Your task to perform on an android device: Clear all items from cart on newegg.com. Search for "bose soundlink" on newegg.com, select the first entry, and add it to the cart. Image 0: 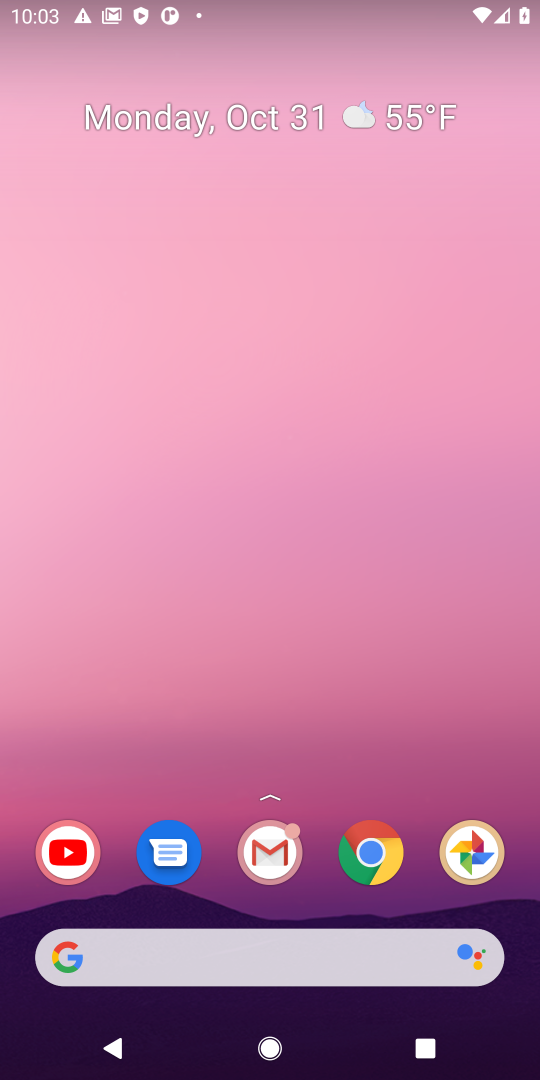
Step 0: press home button
Your task to perform on an android device: Clear all items from cart on newegg.com. Search for "bose soundlink" on newegg.com, select the first entry, and add it to the cart. Image 1: 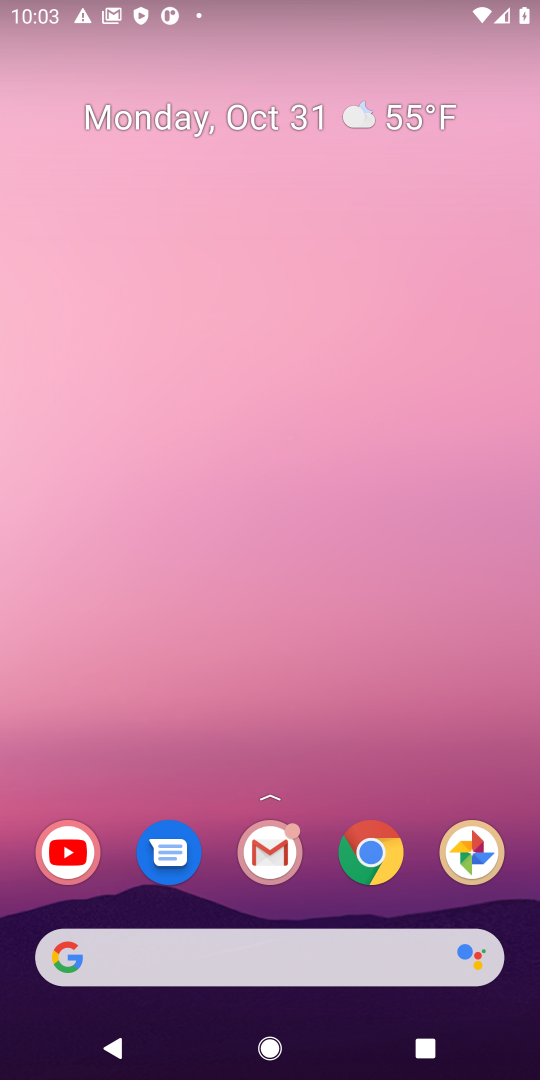
Step 1: drag from (321, 804) to (340, 41)
Your task to perform on an android device: Clear all items from cart on newegg.com. Search for "bose soundlink" on newegg.com, select the first entry, and add it to the cart. Image 2: 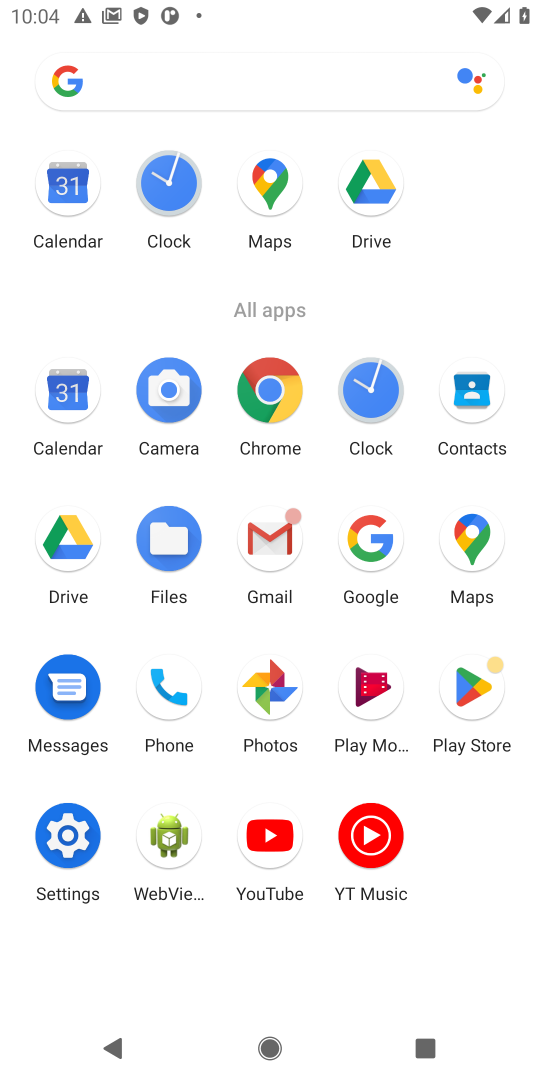
Step 2: click (270, 387)
Your task to perform on an android device: Clear all items from cart on newegg.com. Search for "bose soundlink" on newegg.com, select the first entry, and add it to the cart. Image 3: 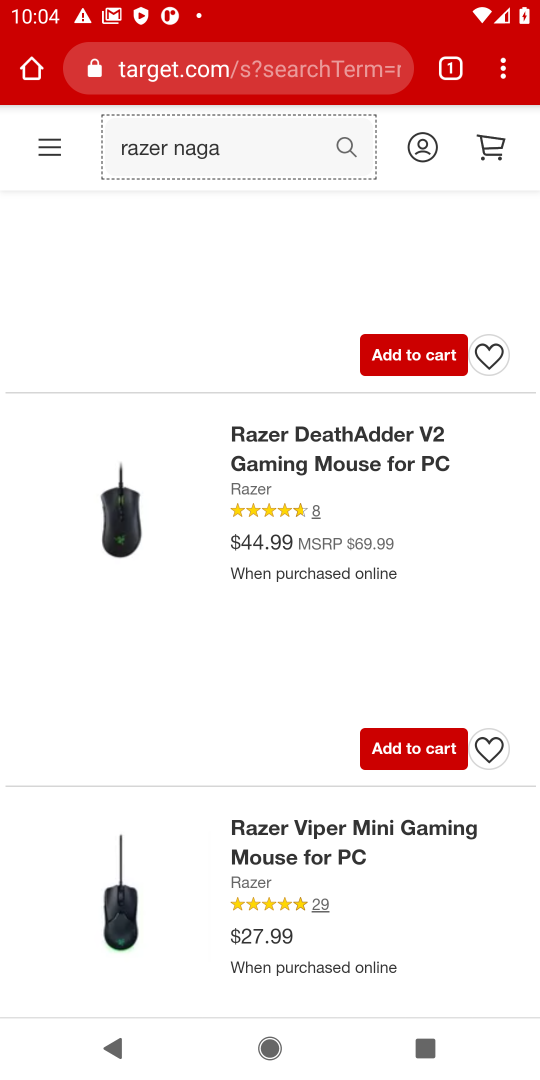
Step 3: click (351, 140)
Your task to perform on an android device: Clear all items from cart on newegg.com. Search for "bose soundlink" on newegg.com, select the first entry, and add it to the cart. Image 4: 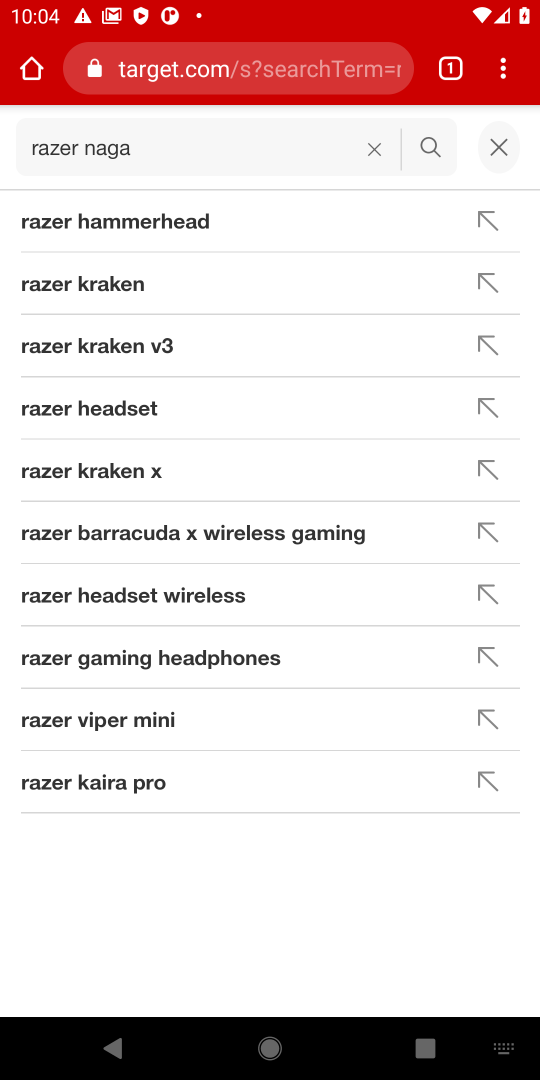
Step 4: click (375, 149)
Your task to perform on an android device: Clear all items from cart on newegg.com. Search for "bose soundlink" on newegg.com, select the first entry, and add it to the cart. Image 5: 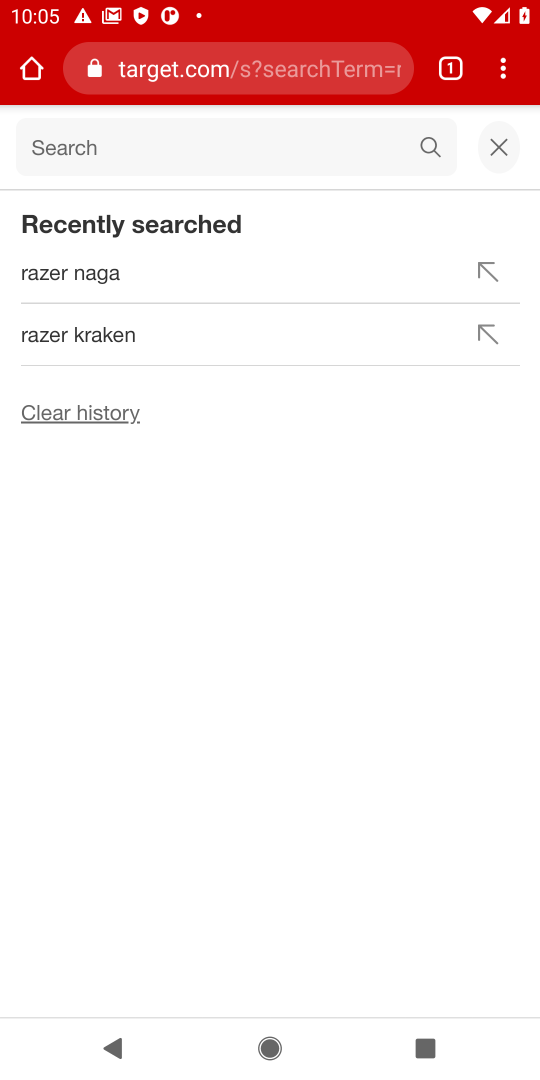
Step 5: click (108, 129)
Your task to perform on an android device: Clear all items from cart on newegg.com. Search for "bose soundlink" on newegg.com, select the first entry, and add it to the cart. Image 6: 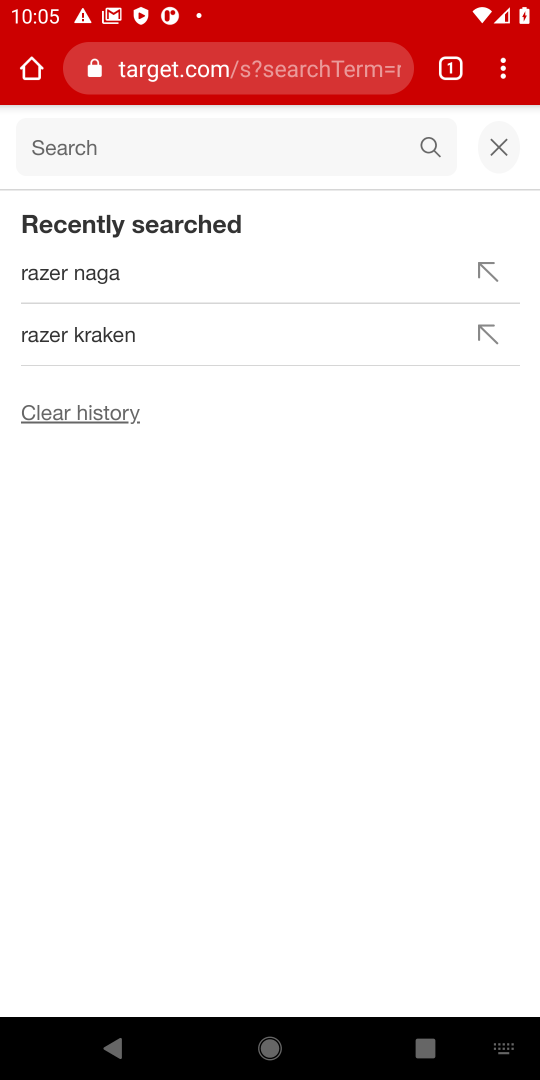
Step 6: click (108, 148)
Your task to perform on an android device: Clear all items from cart on newegg.com. Search for "bose soundlink" on newegg.com, select the first entry, and add it to the cart. Image 7: 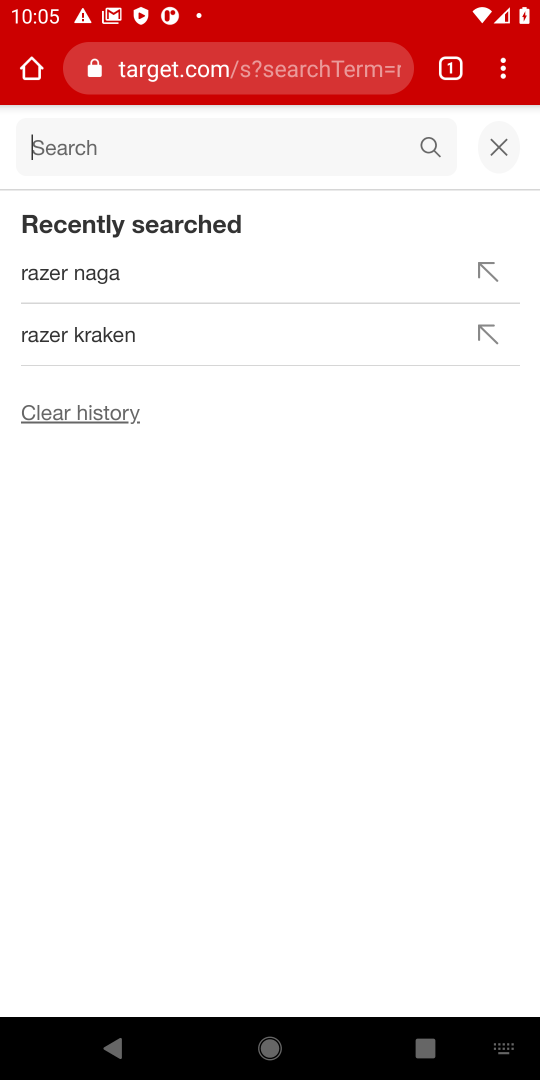
Step 7: type "bose soundlink"
Your task to perform on an android device: Clear all items from cart on newegg.com. Search for "bose soundlink" on newegg.com, select the first entry, and add it to the cart. Image 8: 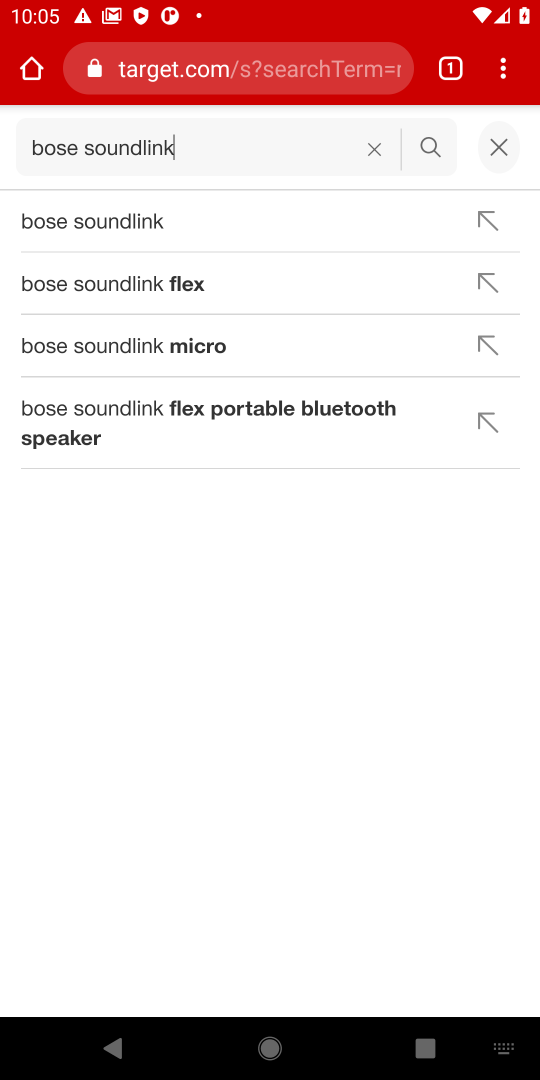
Step 8: click (179, 219)
Your task to perform on an android device: Clear all items from cart on newegg.com. Search for "bose soundlink" on newegg.com, select the first entry, and add it to the cart. Image 9: 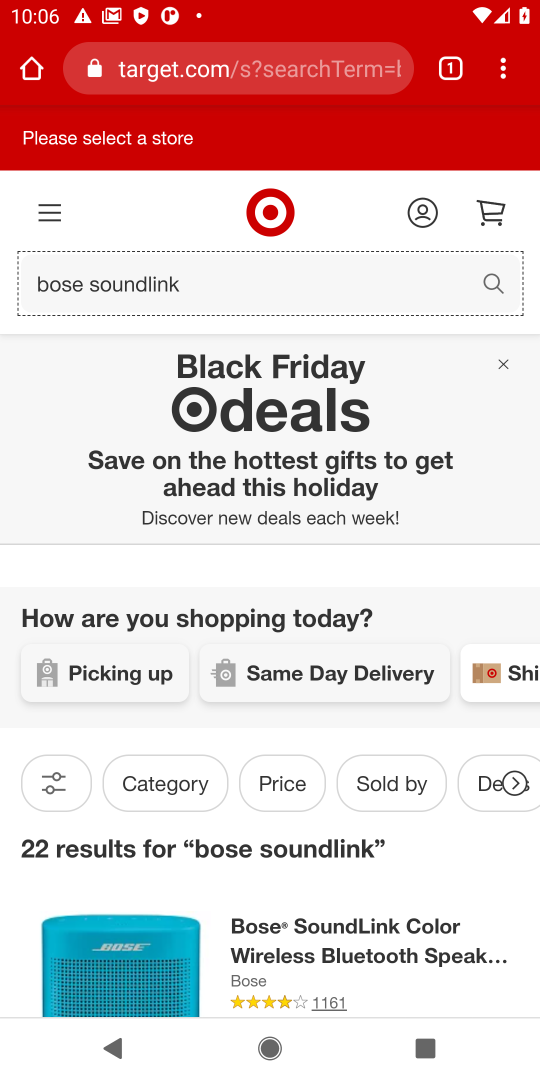
Step 9: drag from (350, 883) to (389, 294)
Your task to perform on an android device: Clear all items from cart on newegg.com. Search for "bose soundlink" on newegg.com, select the first entry, and add it to the cart. Image 10: 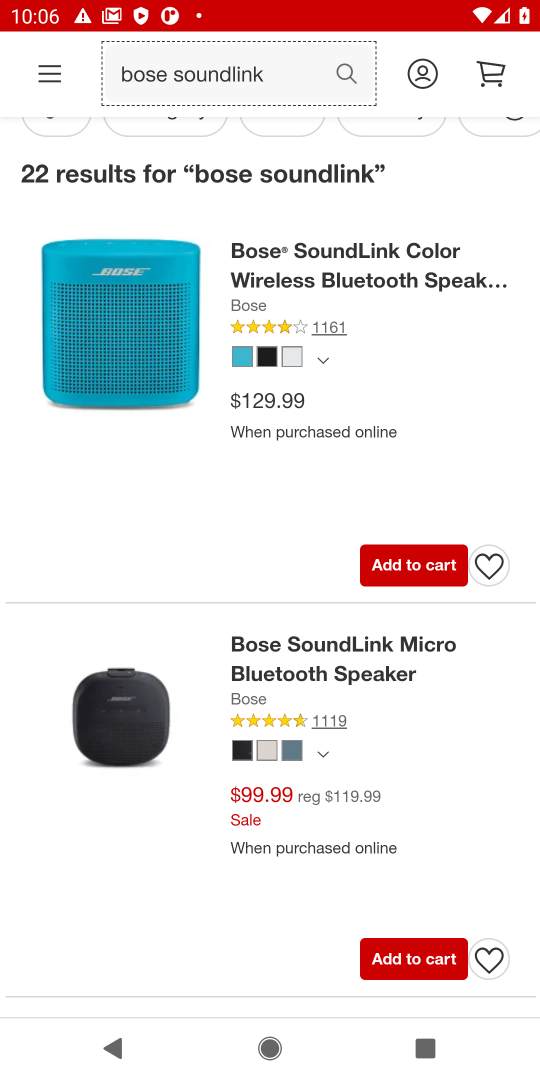
Step 10: click (322, 270)
Your task to perform on an android device: Clear all items from cart on newegg.com. Search for "bose soundlink" on newegg.com, select the first entry, and add it to the cart. Image 11: 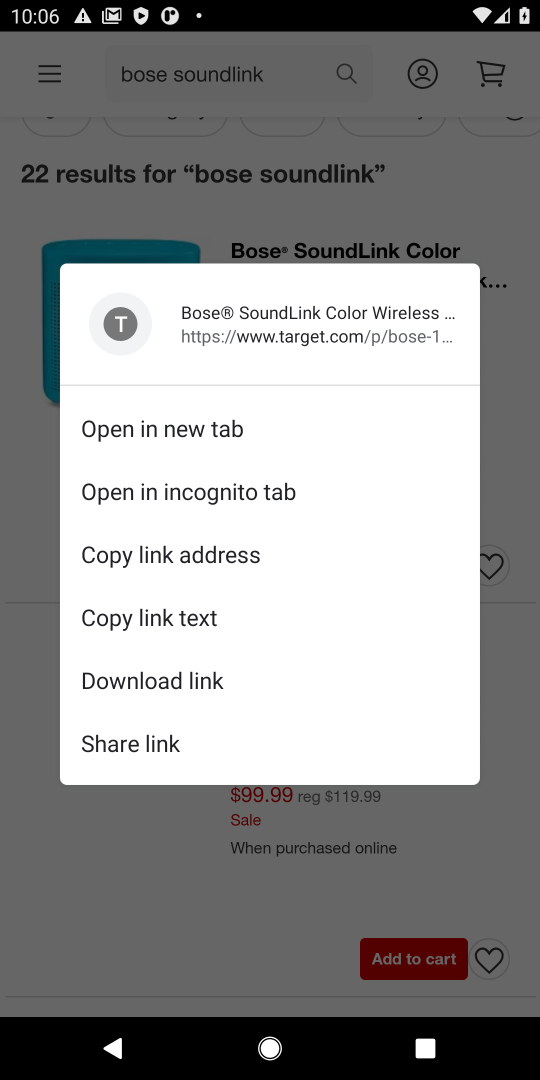
Step 11: click (311, 213)
Your task to perform on an android device: Clear all items from cart on newegg.com. Search for "bose soundlink" on newegg.com, select the first entry, and add it to the cart. Image 12: 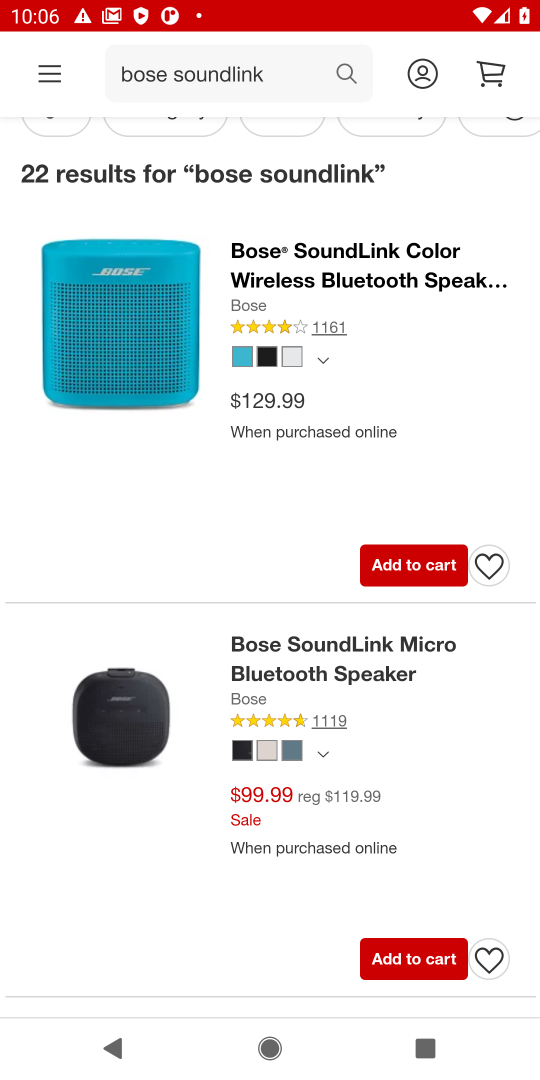
Step 12: click (154, 348)
Your task to perform on an android device: Clear all items from cart on newegg.com. Search for "bose soundlink" on newegg.com, select the first entry, and add it to the cart. Image 13: 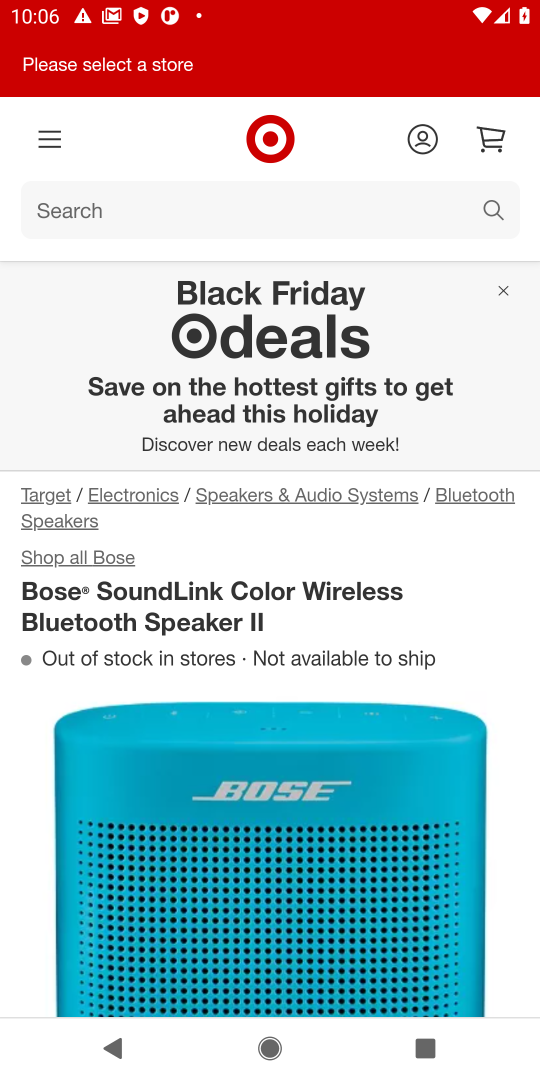
Step 13: drag from (306, 640) to (306, 148)
Your task to perform on an android device: Clear all items from cart on newegg.com. Search for "bose soundlink" on newegg.com, select the first entry, and add it to the cart. Image 14: 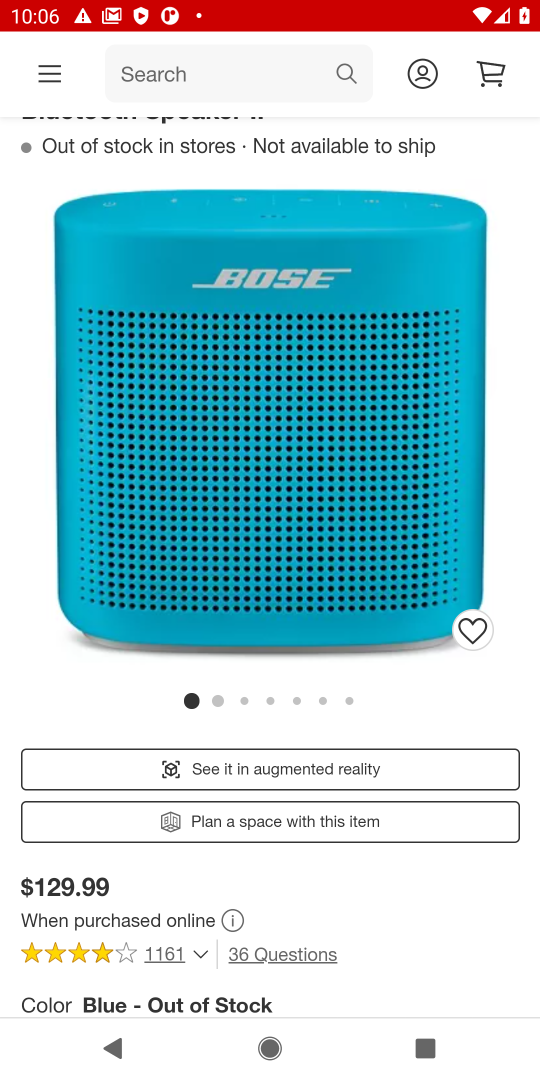
Step 14: drag from (325, 938) to (296, 324)
Your task to perform on an android device: Clear all items from cart on newegg.com. Search for "bose soundlink" on newegg.com, select the first entry, and add it to the cart. Image 15: 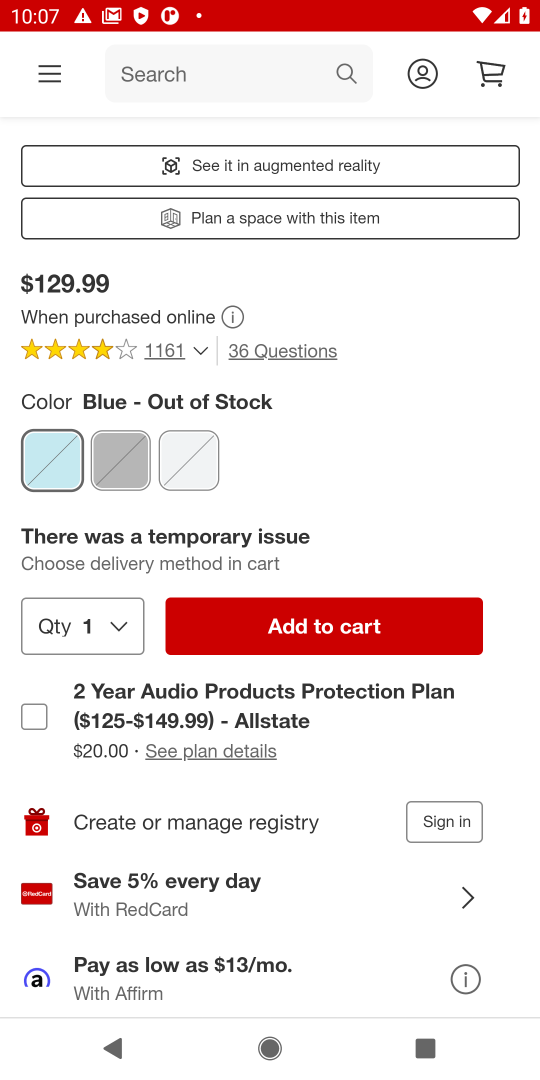
Step 15: click (325, 626)
Your task to perform on an android device: Clear all items from cart on newegg.com. Search for "bose soundlink" on newegg.com, select the first entry, and add it to the cart. Image 16: 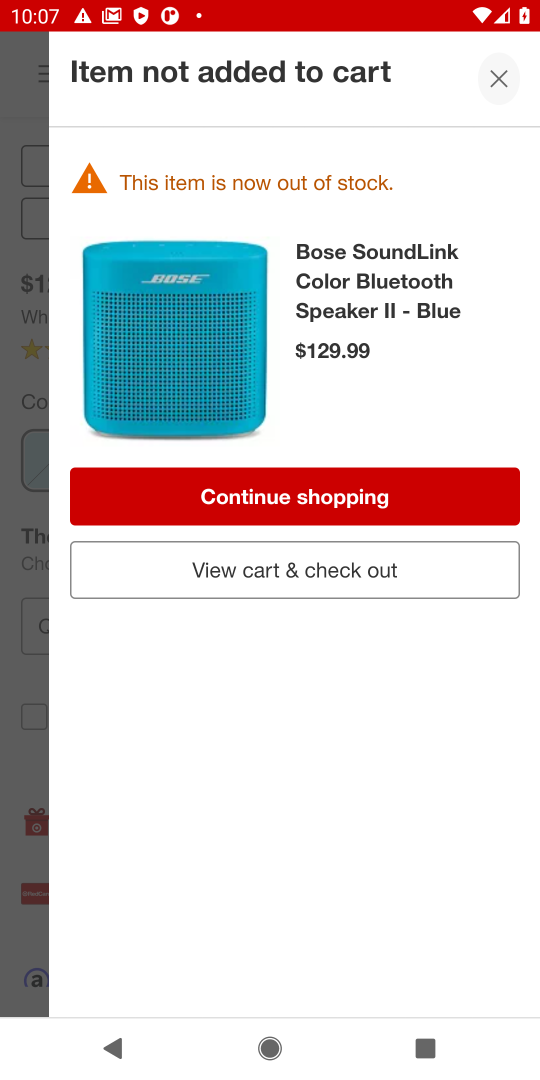
Step 16: click (494, 72)
Your task to perform on an android device: Clear all items from cart on newegg.com. Search for "bose soundlink" on newegg.com, select the first entry, and add it to the cart. Image 17: 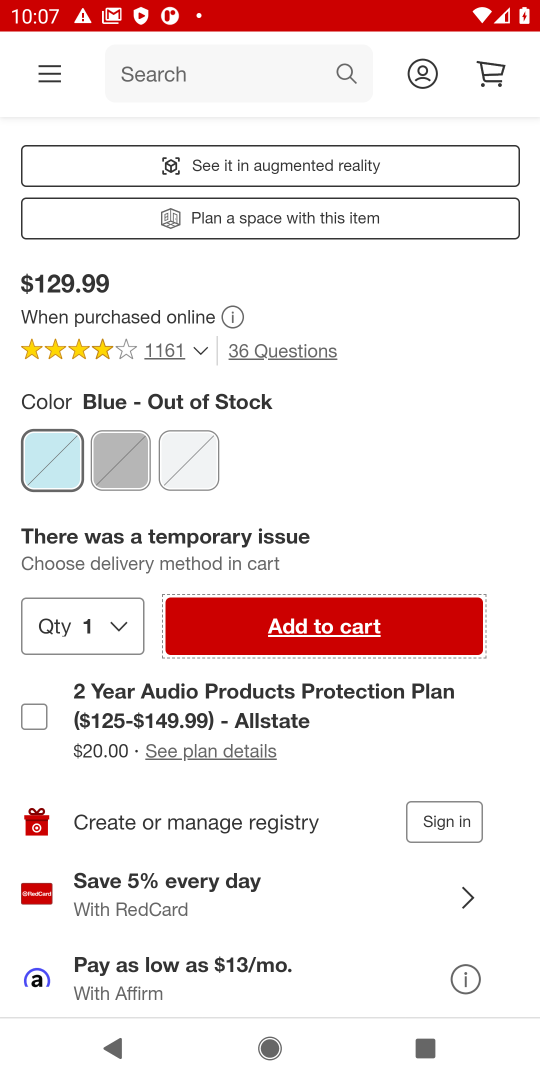
Step 17: click (341, 641)
Your task to perform on an android device: Clear all items from cart on newegg.com. Search for "bose soundlink" on newegg.com, select the first entry, and add it to the cart. Image 18: 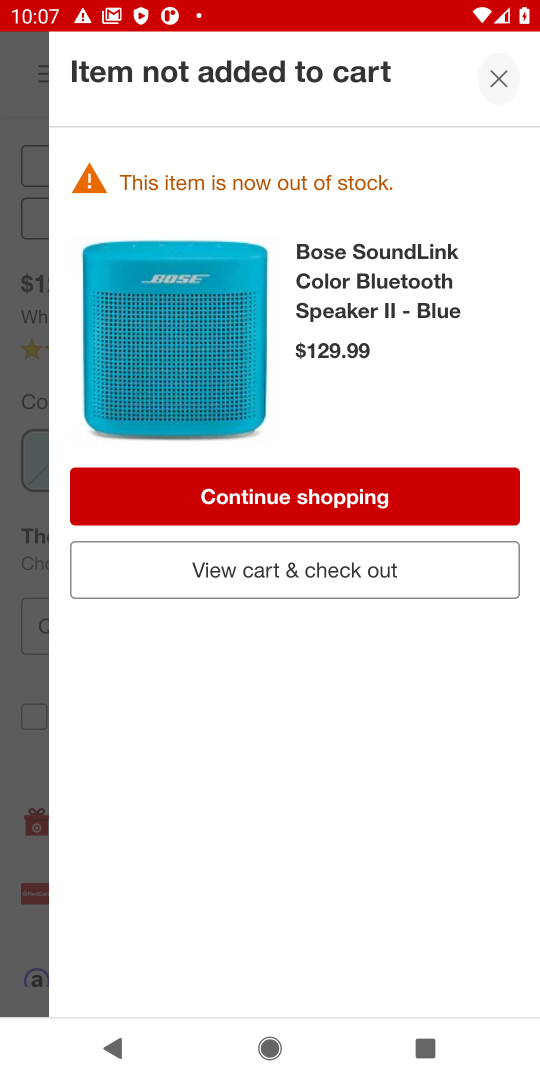
Step 18: click (508, 81)
Your task to perform on an android device: Clear all items from cart on newegg.com. Search for "bose soundlink" on newegg.com, select the first entry, and add it to the cart. Image 19: 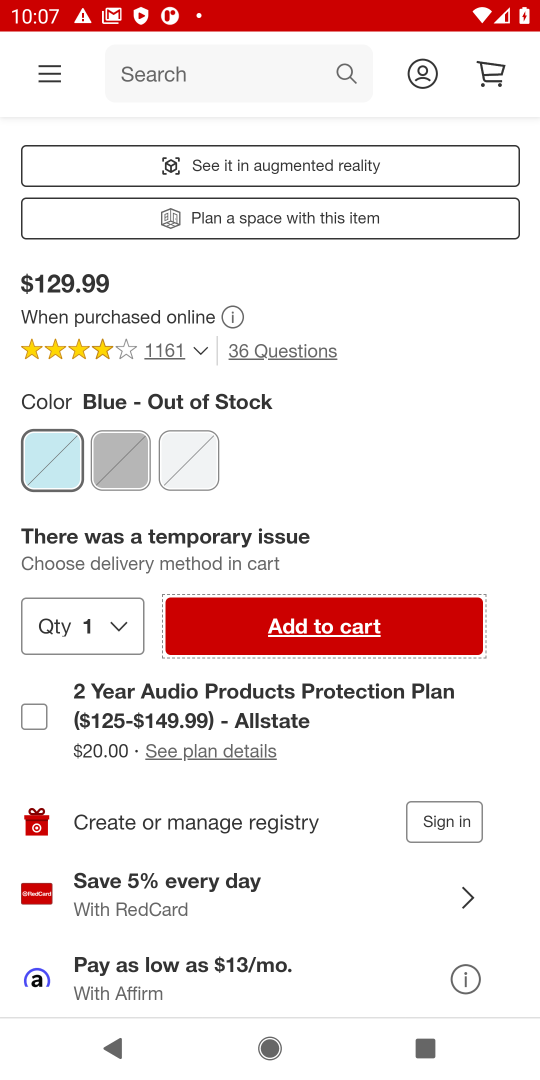
Step 19: press back button
Your task to perform on an android device: Clear all items from cart on newegg.com. Search for "bose soundlink" on newegg.com, select the first entry, and add it to the cart. Image 20: 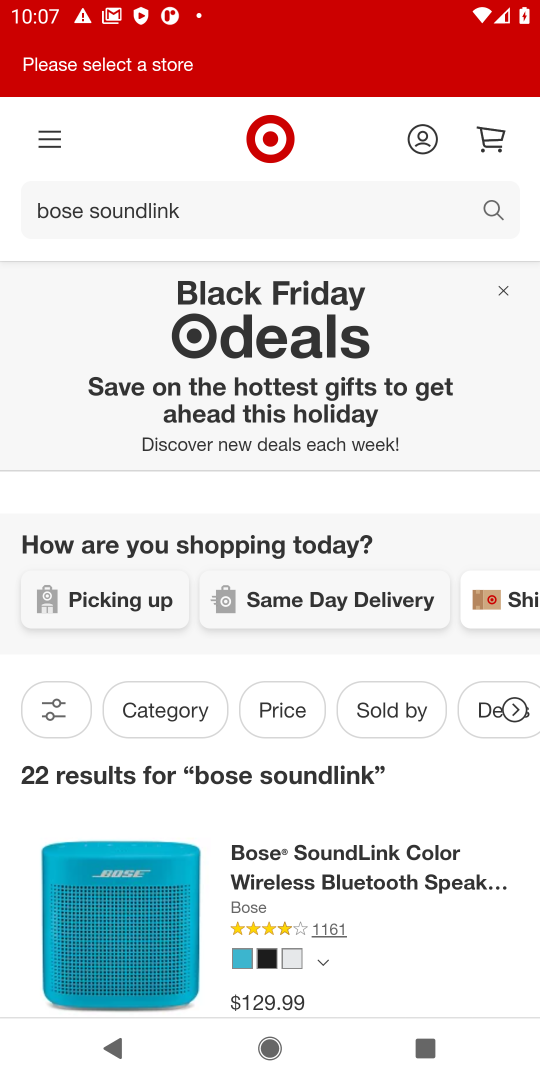
Step 20: drag from (277, 875) to (305, 301)
Your task to perform on an android device: Clear all items from cart on newegg.com. Search for "bose soundlink" on newegg.com, select the first entry, and add it to the cart. Image 21: 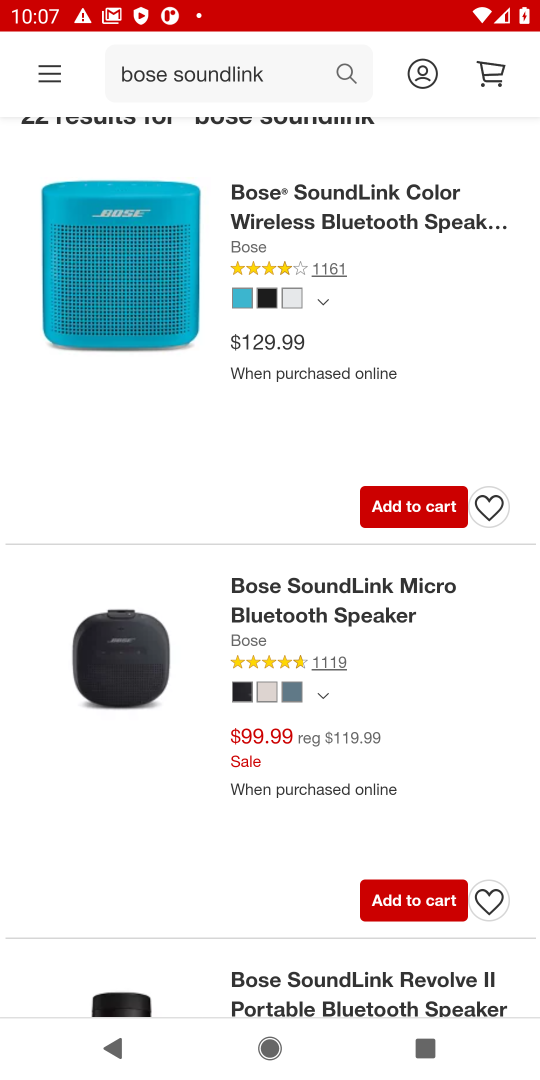
Step 21: click (342, 600)
Your task to perform on an android device: Clear all items from cart on newegg.com. Search for "bose soundlink" on newegg.com, select the first entry, and add it to the cart. Image 22: 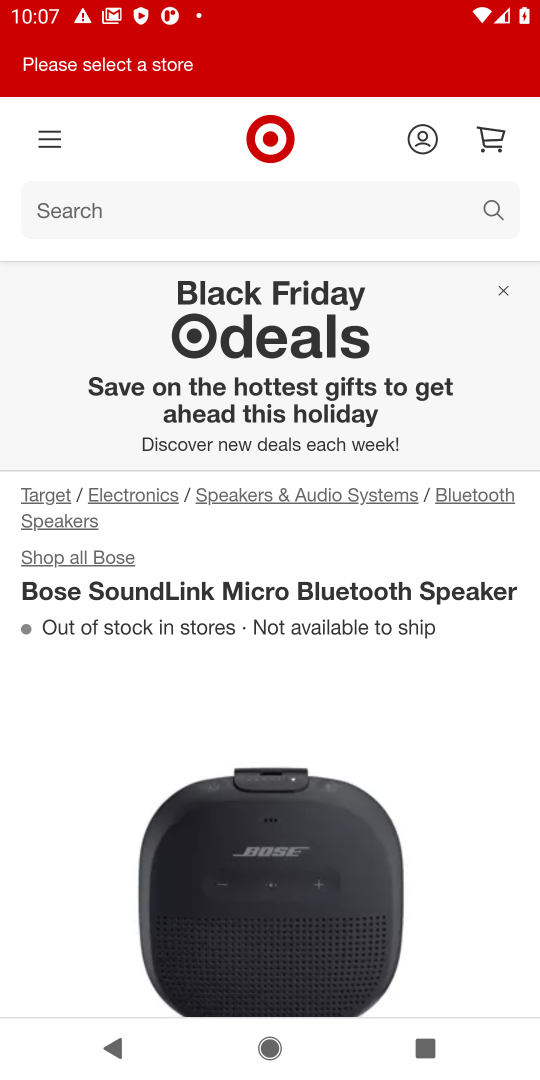
Step 22: drag from (431, 859) to (422, 311)
Your task to perform on an android device: Clear all items from cart on newegg.com. Search for "bose soundlink" on newegg.com, select the first entry, and add it to the cart. Image 23: 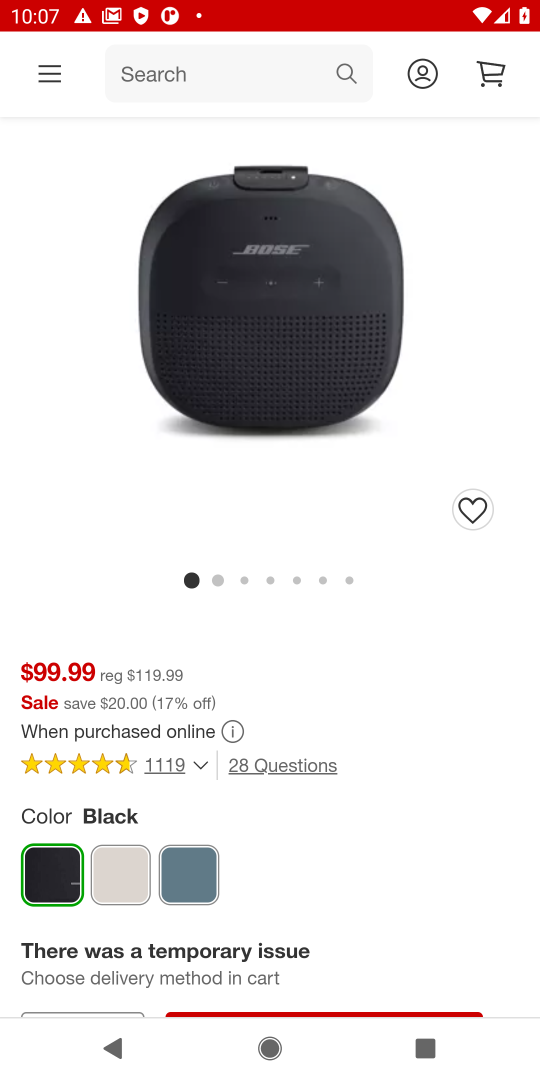
Step 23: drag from (313, 873) to (336, 535)
Your task to perform on an android device: Clear all items from cart on newegg.com. Search for "bose soundlink" on newegg.com, select the first entry, and add it to the cart. Image 24: 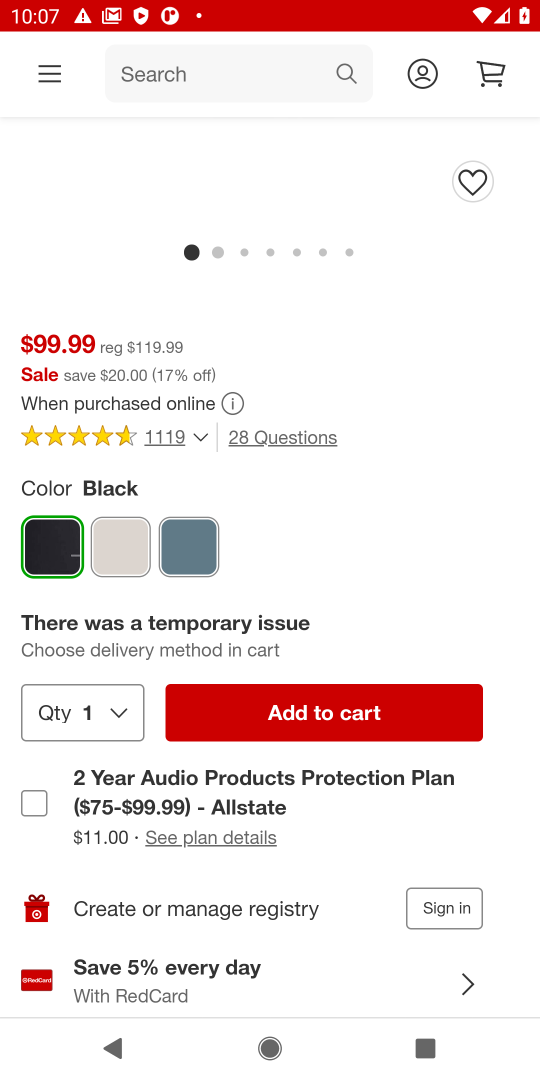
Step 24: click (322, 719)
Your task to perform on an android device: Clear all items from cart on newegg.com. Search for "bose soundlink" on newegg.com, select the first entry, and add it to the cart. Image 25: 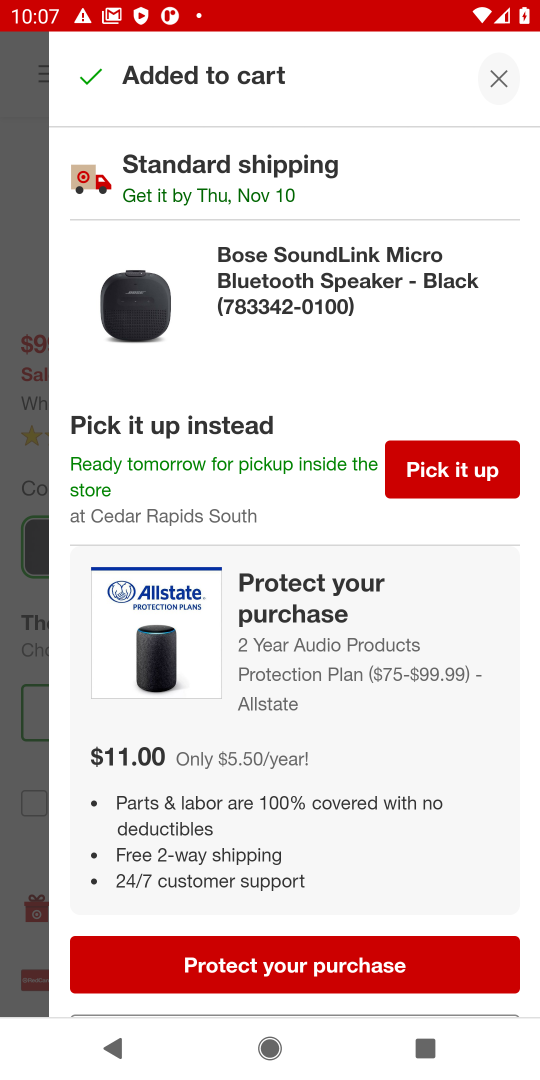
Step 25: click (500, 72)
Your task to perform on an android device: Clear all items from cart on newegg.com. Search for "bose soundlink" on newegg.com, select the first entry, and add it to the cart. Image 26: 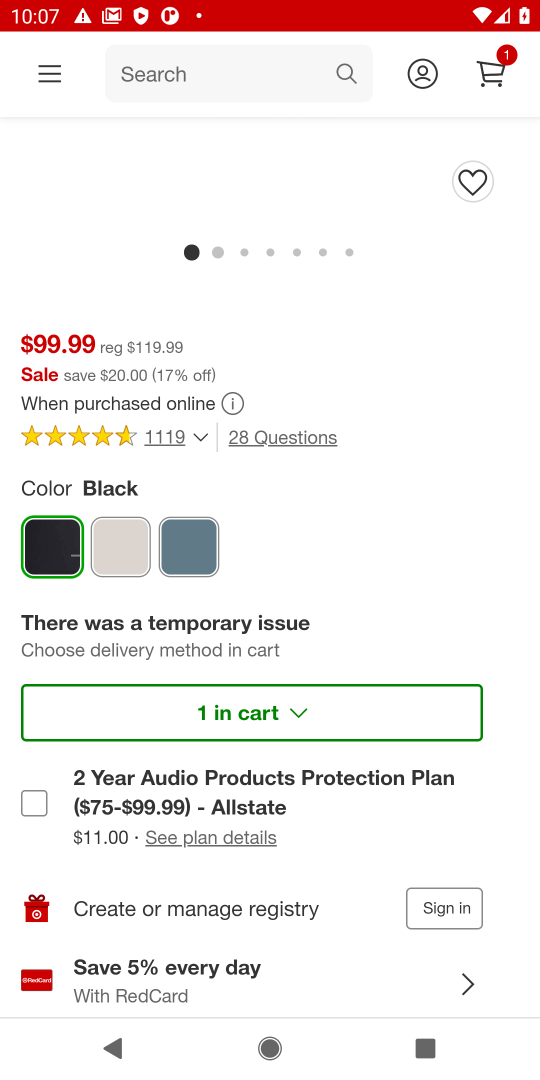
Step 26: click (485, 63)
Your task to perform on an android device: Clear all items from cart on newegg.com. Search for "bose soundlink" on newegg.com, select the first entry, and add it to the cart. Image 27: 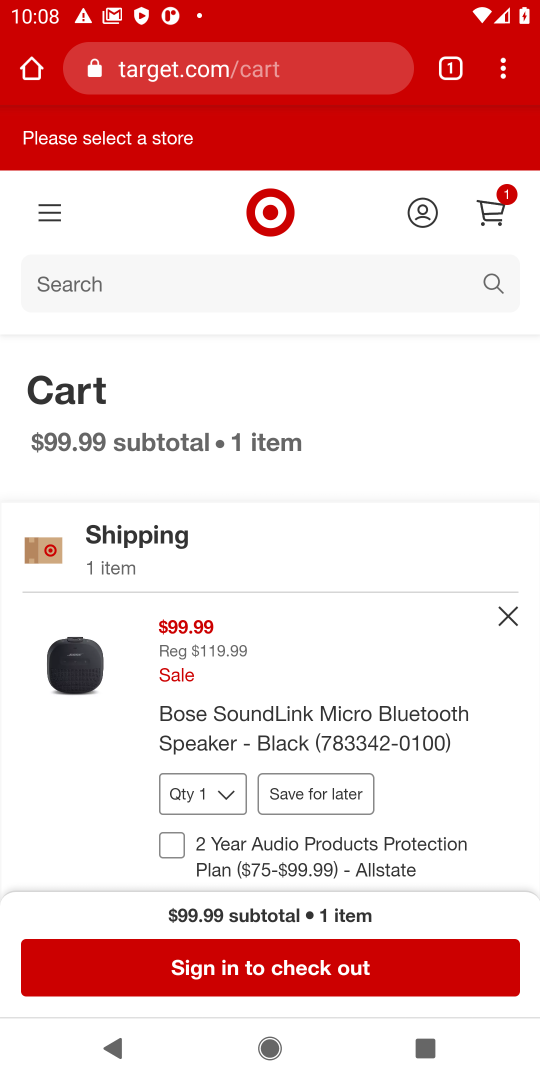
Step 27: task complete